Your task to perform on an android device: Go to eBay Image 0: 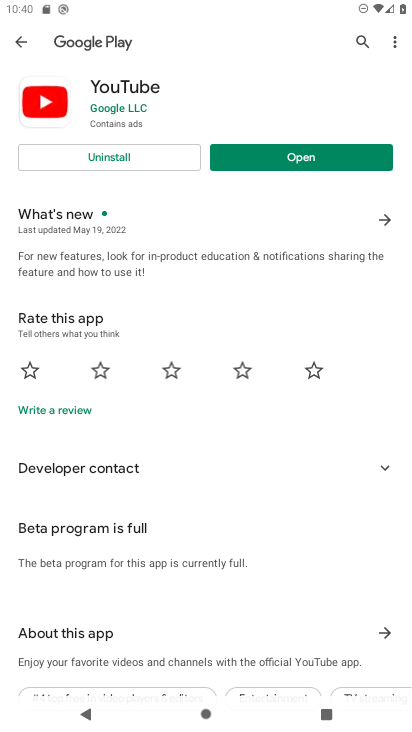
Step 0: press home button
Your task to perform on an android device: Go to eBay Image 1: 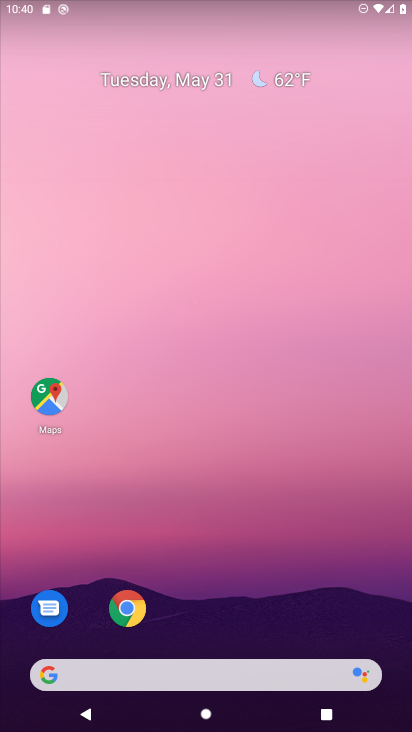
Step 1: drag from (334, 606) to (339, 220)
Your task to perform on an android device: Go to eBay Image 2: 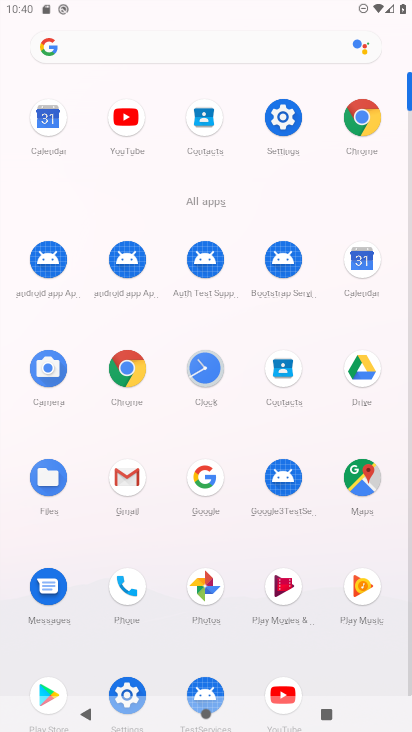
Step 2: click (142, 368)
Your task to perform on an android device: Go to eBay Image 3: 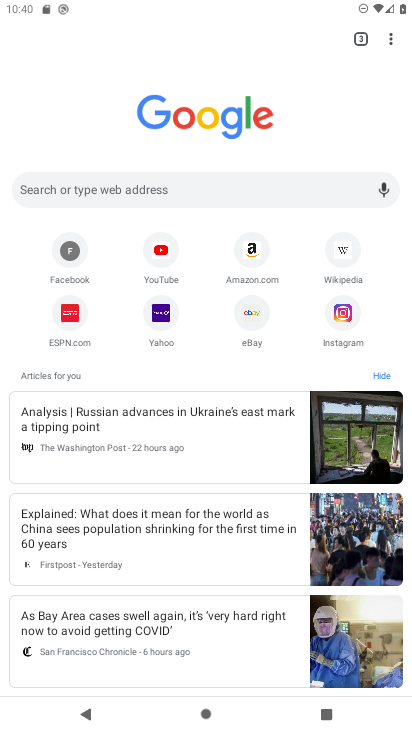
Step 3: click (232, 182)
Your task to perform on an android device: Go to eBay Image 4: 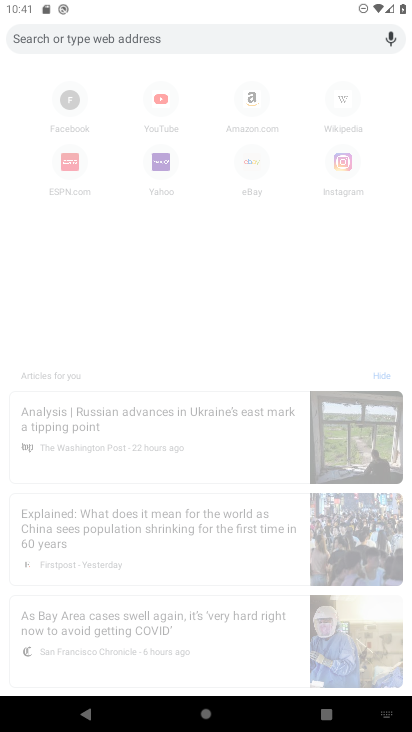
Step 4: type "ebay"
Your task to perform on an android device: Go to eBay Image 5: 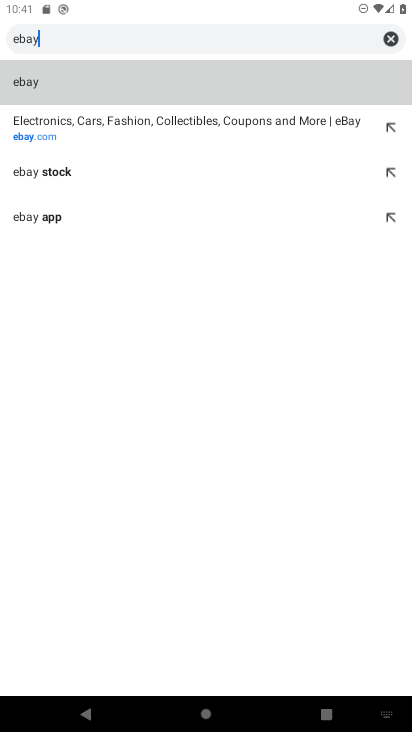
Step 5: click (53, 120)
Your task to perform on an android device: Go to eBay Image 6: 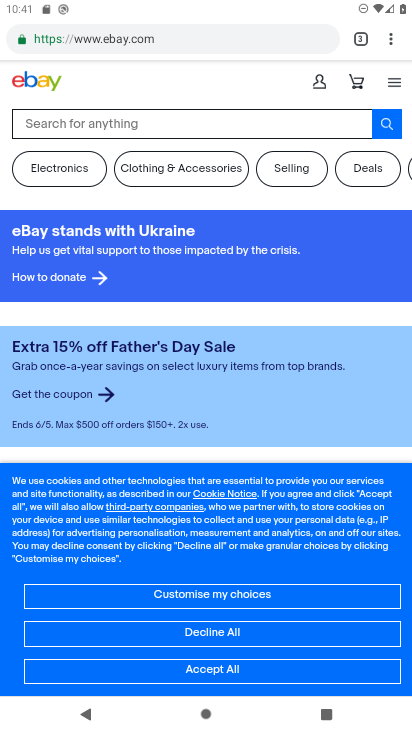
Step 6: task complete